Your task to perform on an android device: Search for Italian restaurants on Maps Image 0: 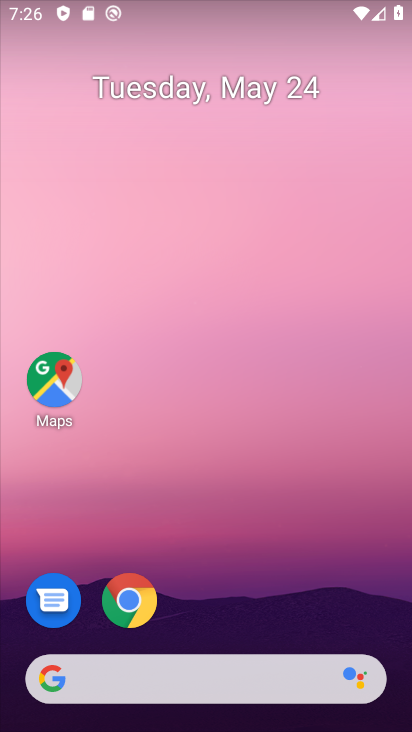
Step 0: click (48, 380)
Your task to perform on an android device: Search for Italian restaurants on Maps Image 1: 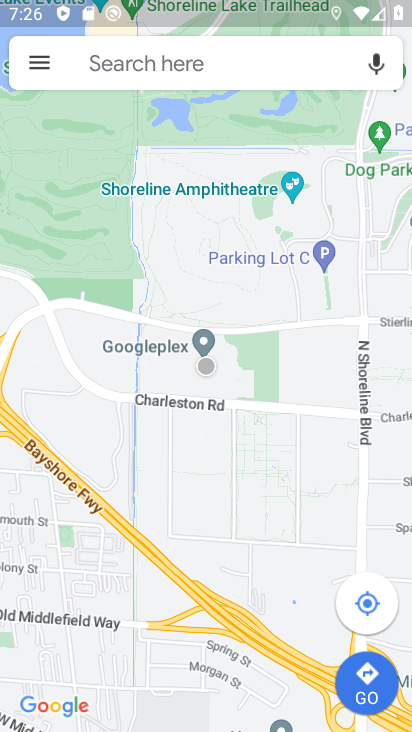
Step 1: click (167, 67)
Your task to perform on an android device: Search for Italian restaurants on Maps Image 2: 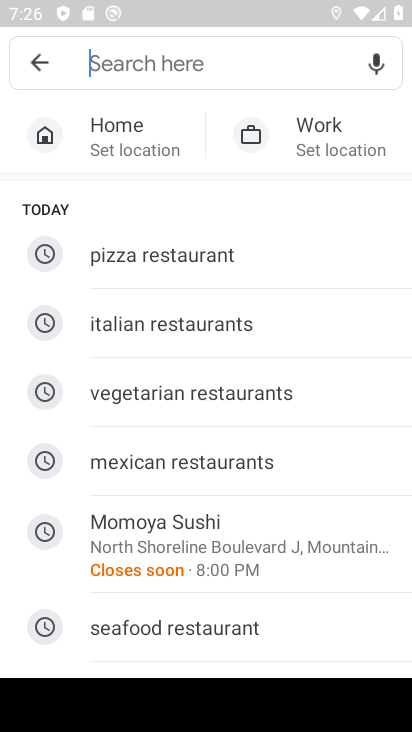
Step 2: click (167, 318)
Your task to perform on an android device: Search for Italian restaurants on Maps Image 3: 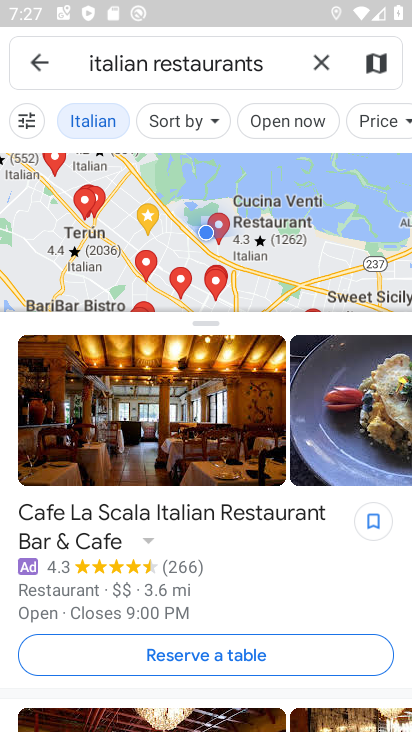
Step 3: task complete